Your task to perform on an android device: Do I have any events tomorrow? Image 0: 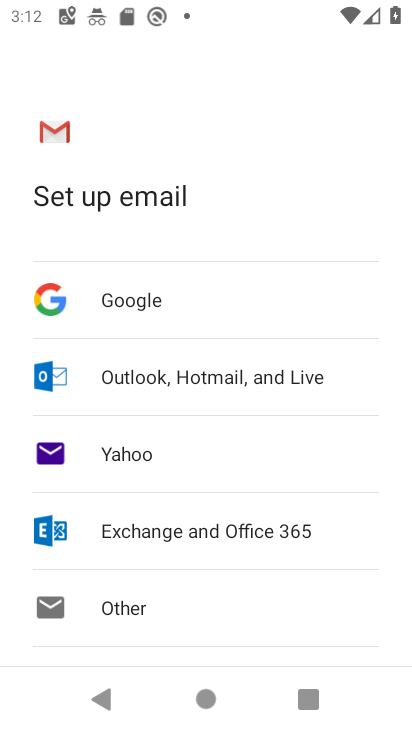
Step 0: press home button
Your task to perform on an android device: Do I have any events tomorrow? Image 1: 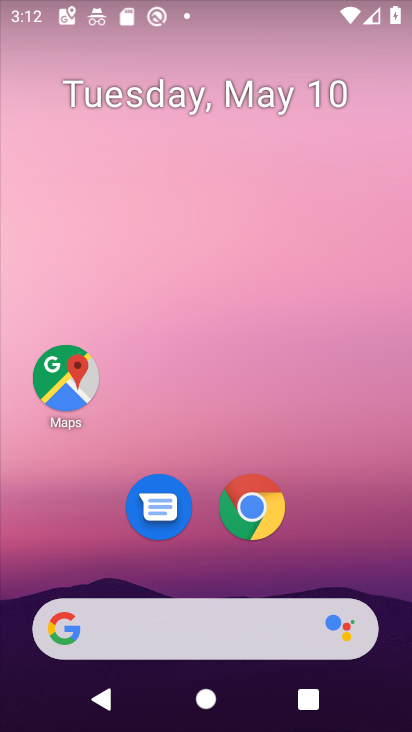
Step 1: drag from (272, 584) to (255, 192)
Your task to perform on an android device: Do I have any events tomorrow? Image 2: 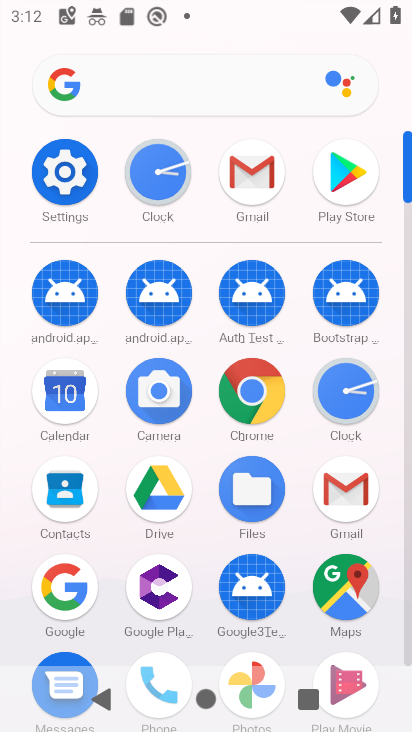
Step 2: click (55, 397)
Your task to perform on an android device: Do I have any events tomorrow? Image 3: 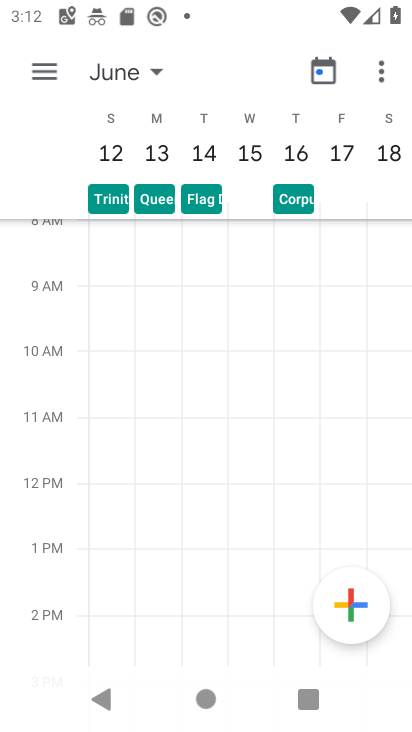
Step 3: click (141, 76)
Your task to perform on an android device: Do I have any events tomorrow? Image 4: 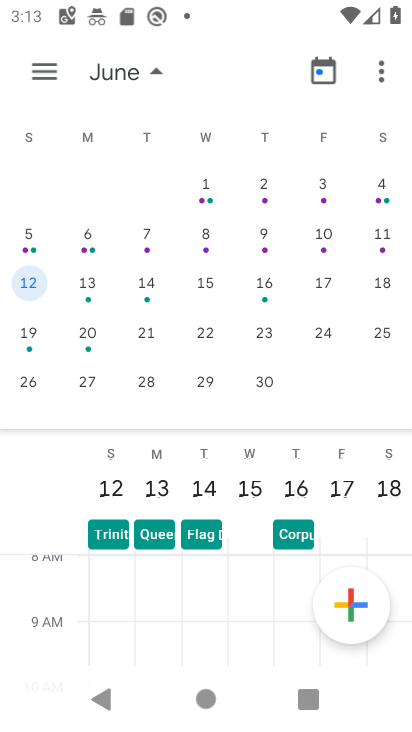
Step 4: click (80, 282)
Your task to perform on an android device: Do I have any events tomorrow? Image 5: 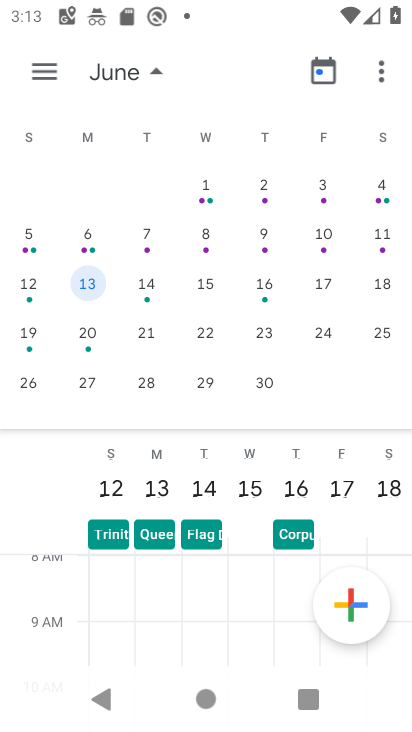
Step 5: task complete